Your task to perform on an android device: Set the phone to "Do not disturb". Image 0: 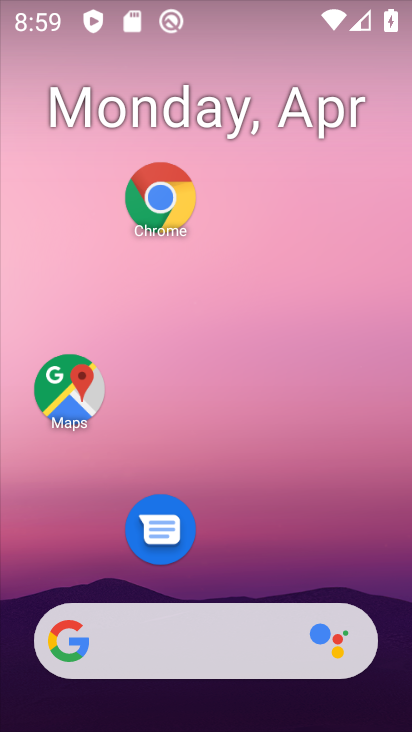
Step 0: drag from (239, 18) to (178, 632)
Your task to perform on an android device: Set the phone to "Do not disturb". Image 1: 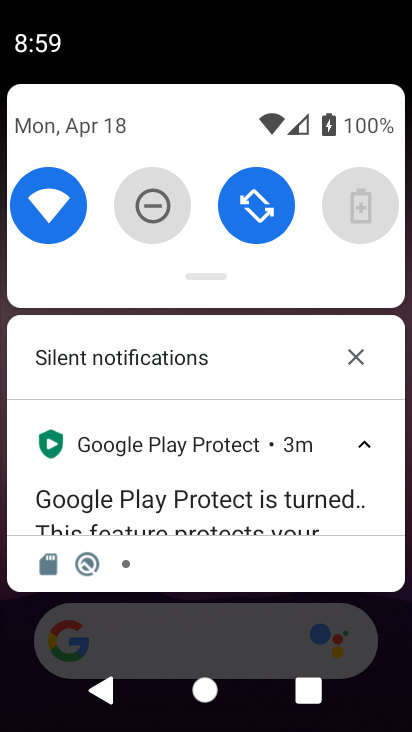
Step 1: click (213, 613)
Your task to perform on an android device: Set the phone to "Do not disturb". Image 2: 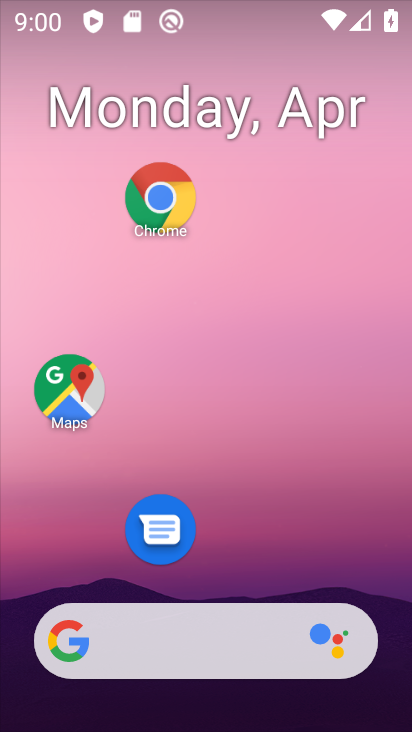
Step 2: drag from (190, 19) to (226, 496)
Your task to perform on an android device: Set the phone to "Do not disturb". Image 3: 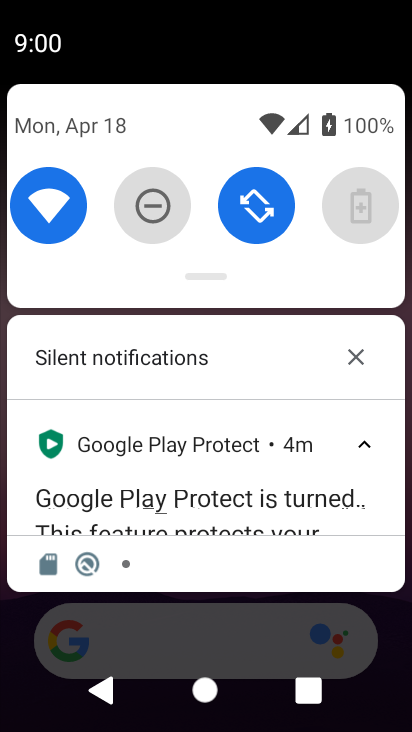
Step 3: click (157, 198)
Your task to perform on an android device: Set the phone to "Do not disturb". Image 4: 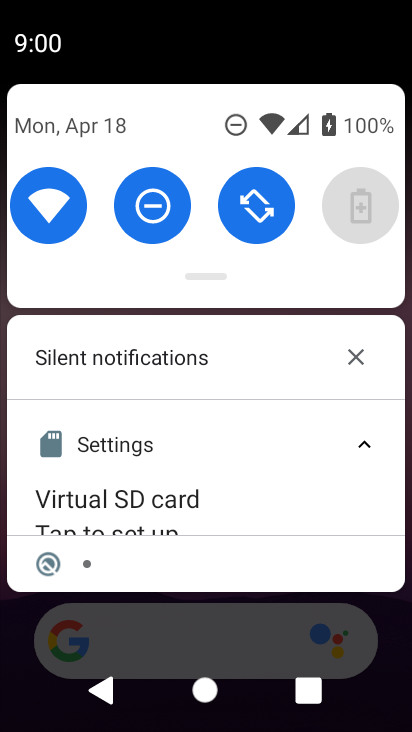
Step 4: task complete